Your task to perform on an android device: Open the calendar and show me this week's events? Image 0: 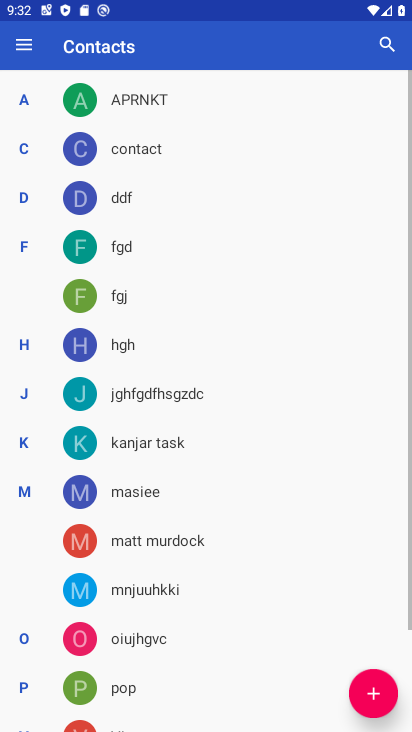
Step 0: press home button
Your task to perform on an android device: Open the calendar and show me this week's events? Image 1: 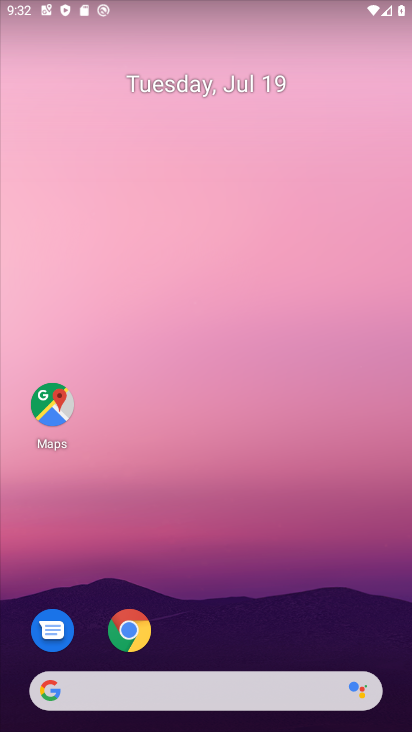
Step 1: drag from (205, 588) to (243, 170)
Your task to perform on an android device: Open the calendar and show me this week's events? Image 2: 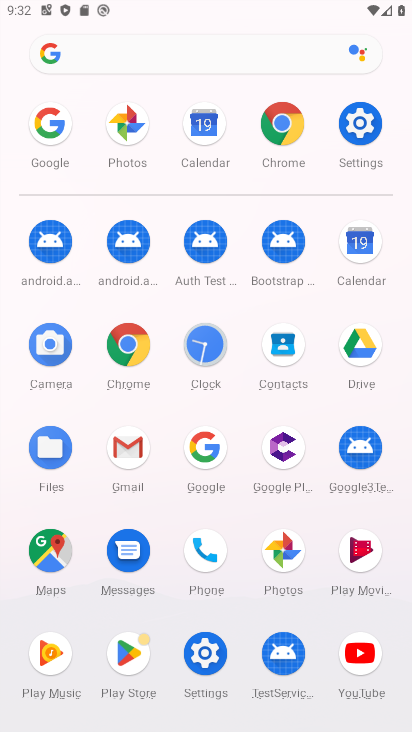
Step 2: click (358, 243)
Your task to perform on an android device: Open the calendar and show me this week's events? Image 3: 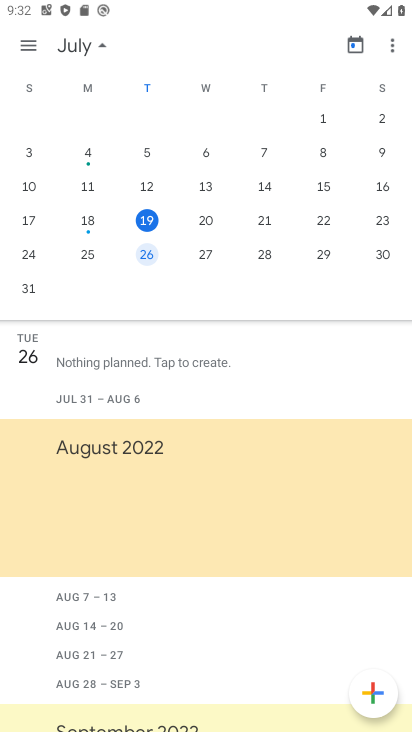
Step 3: click (201, 219)
Your task to perform on an android device: Open the calendar and show me this week's events? Image 4: 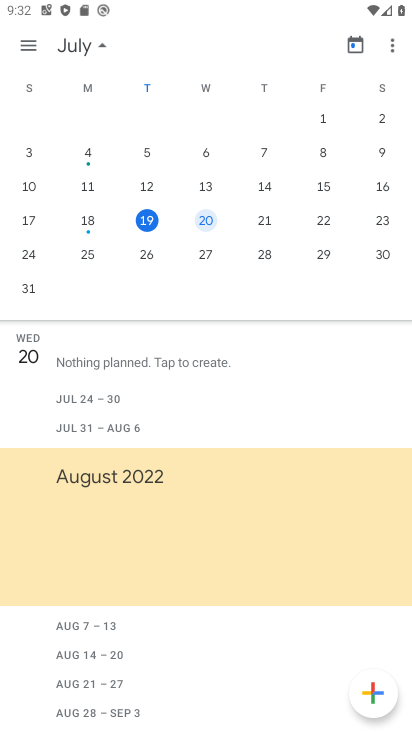
Step 4: task complete